Your task to perform on an android device: Go to internet settings Image 0: 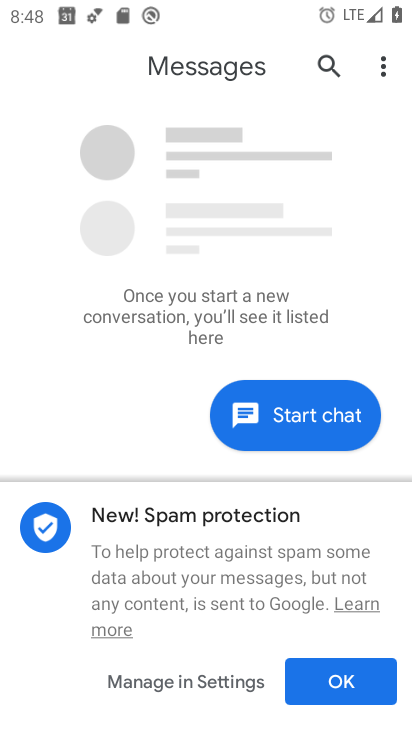
Step 0: press home button
Your task to perform on an android device: Go to internet settings Image 1: 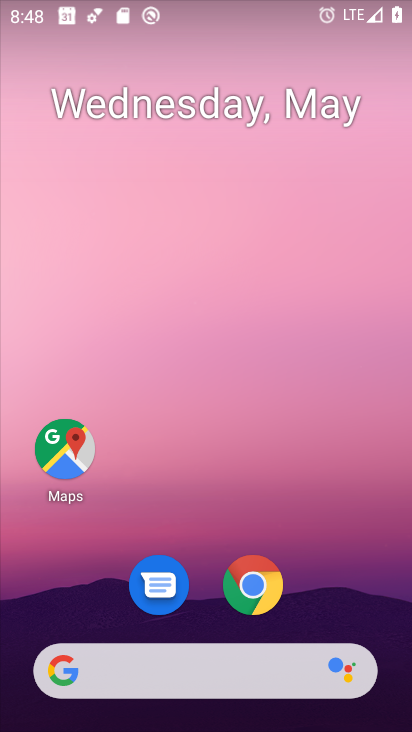
Step 1: drag from (243, 477) to (234, 68)
Your task to perform on an android device: Go to internet settings Image 2: 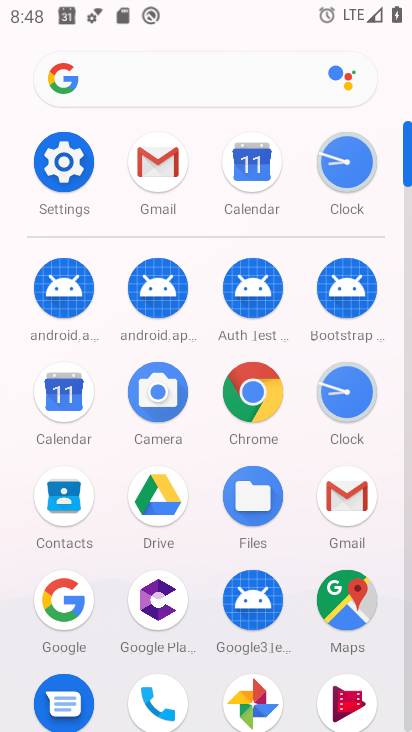
Step 2: click (83, 159)
Your task to perform on an android device: Go to internet settings Image 3: 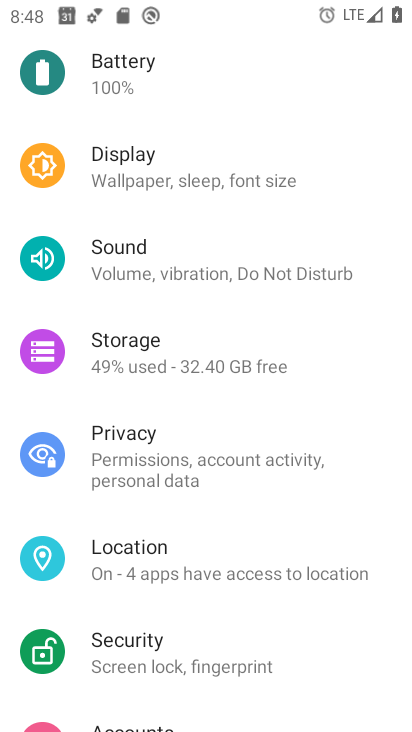
Step 3: drag from (210, 185) to (269, 523)
Your task to perform on an android device: Go to internet settings Image 4: 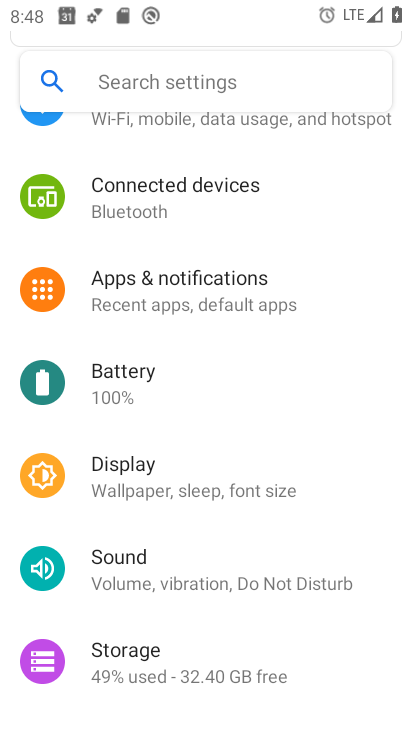
Step 4: drag from (260, 327) to (289, 592)
Your task to perform on an android device: Go to internet settings Image 5: 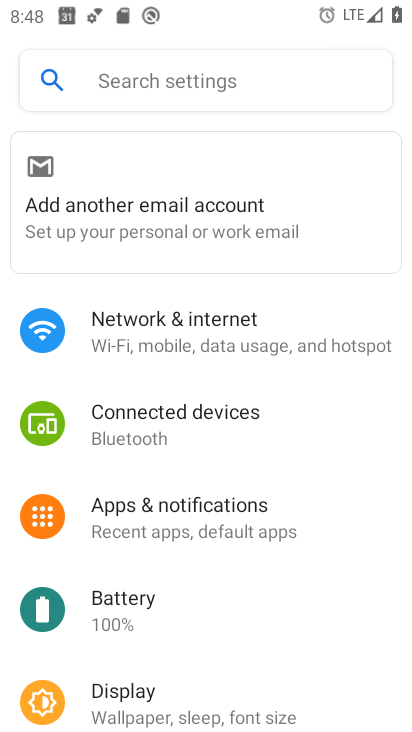
Step 5: click (252, 327)
Your task to perform on an android device: Go to internet settings Image 6: 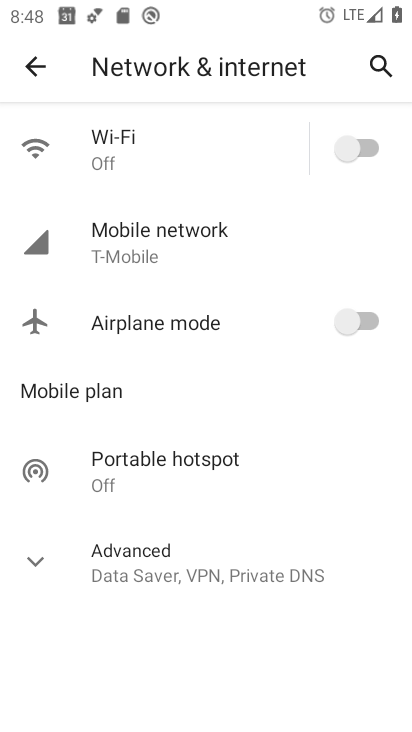
Step 6: task complete